Your task to perform on an android device: What's on my calendar today? Image 0: 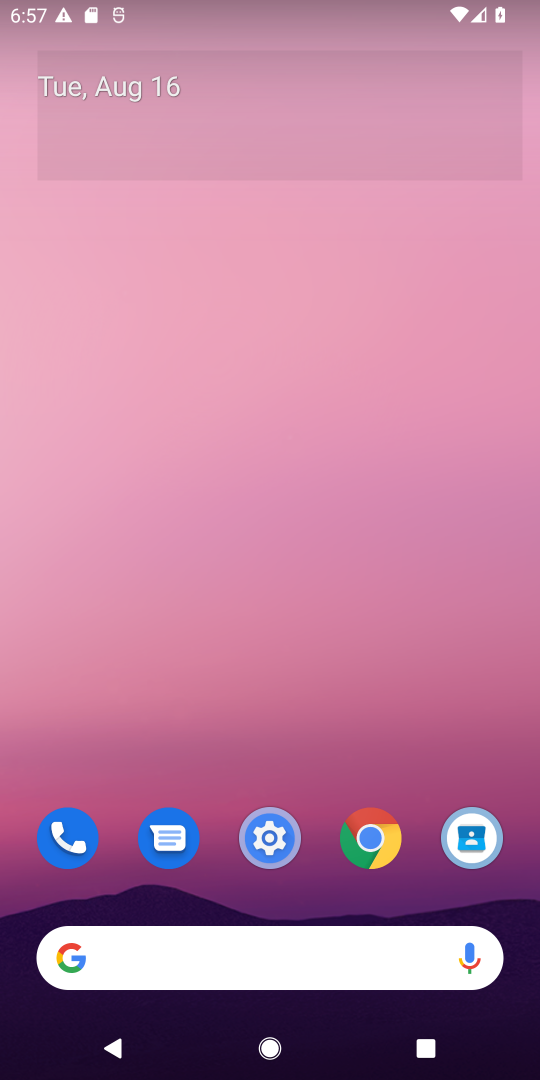
Step 0: drag from (316, 790) to (369, 1)
Your task to perform on an android device: What's on my calendar today? Image 1: 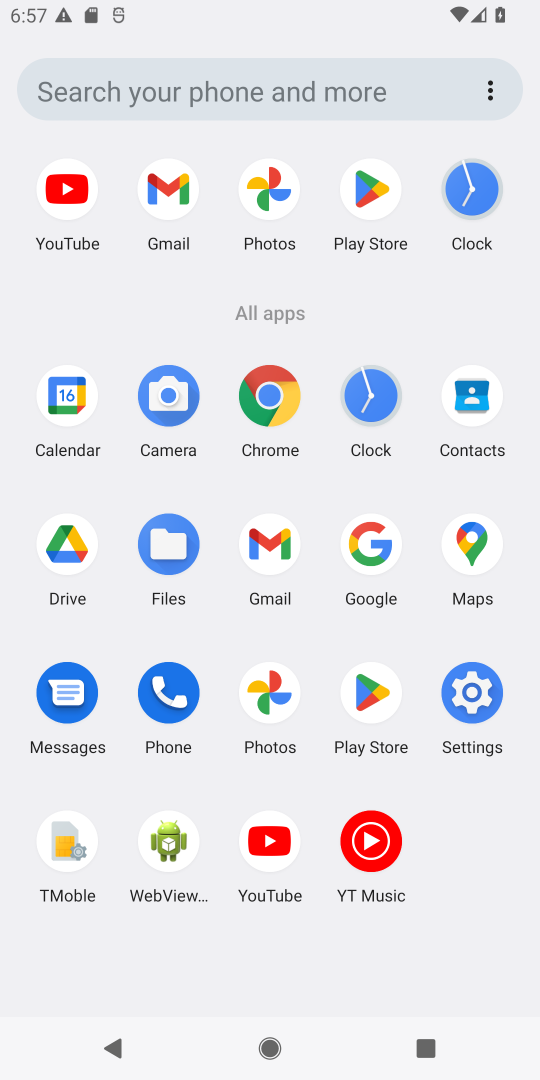
Step 1: click (71, 378)
Your task to perform on an android device: What's on my calendar today? Image 2: 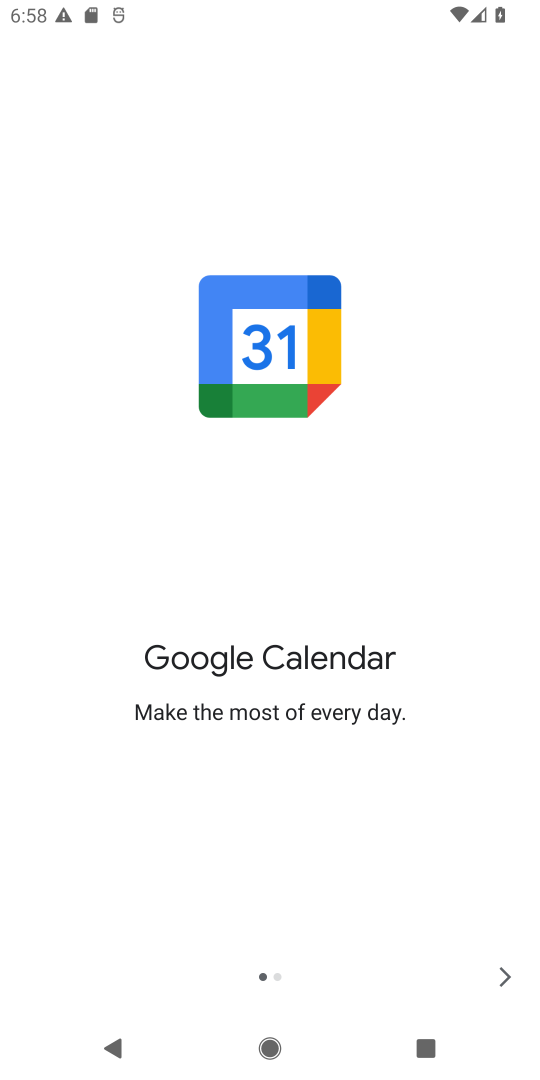
Step 2: click (508, 971)
Your task to perform on an android device: What's on my calendar today? Image 3: 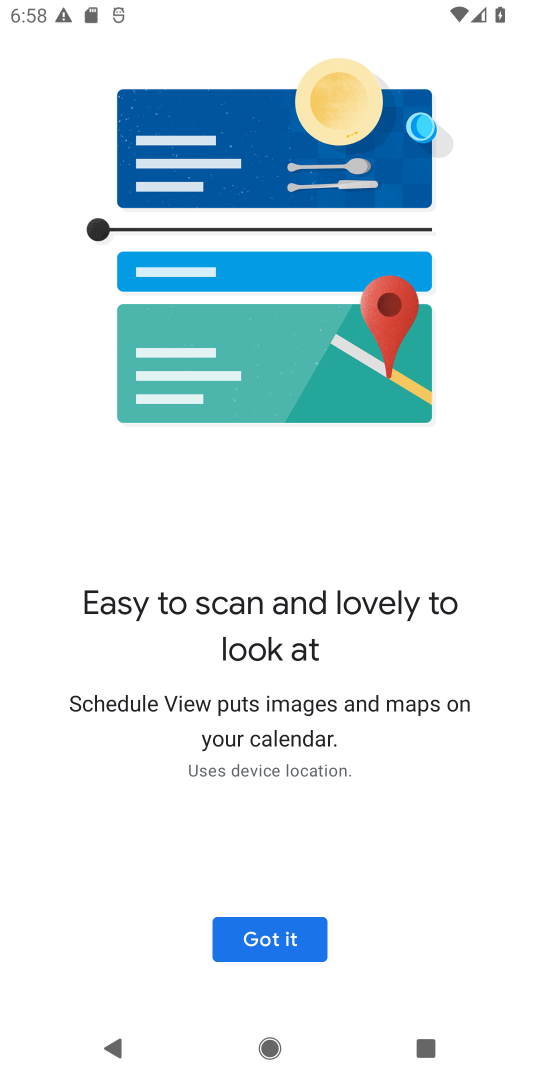
Step 3: click (270, 934)
Your task to perform on an android device: What's on my calendar today? Image 4: 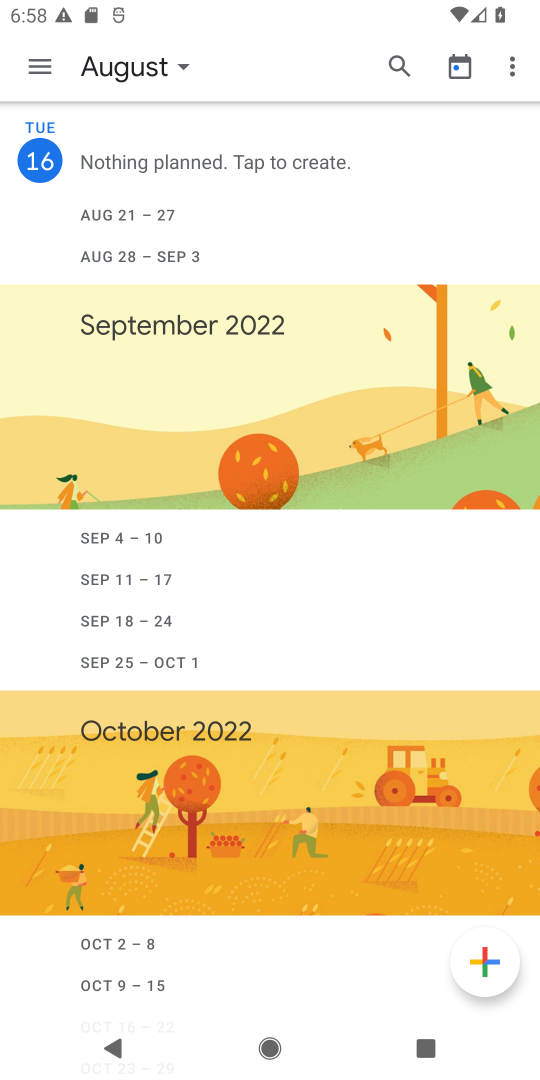
Step 4: click (172, 68)
Your task to perform on an android device: What's on my calendar today? Image 5: 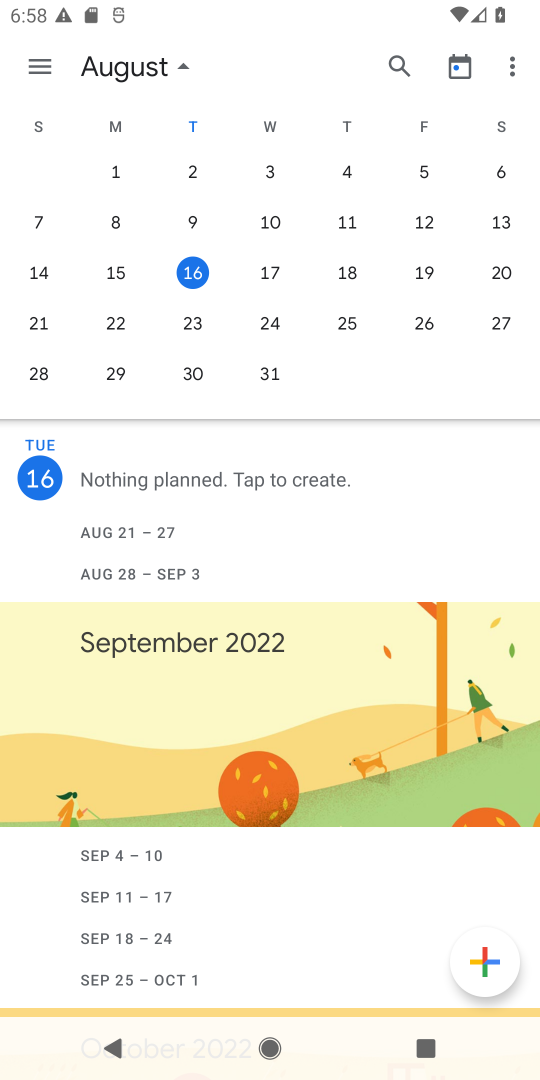
Step 5: click (195, 270)
Your task to perform on an android device: What's on my calendar today? Image 6: 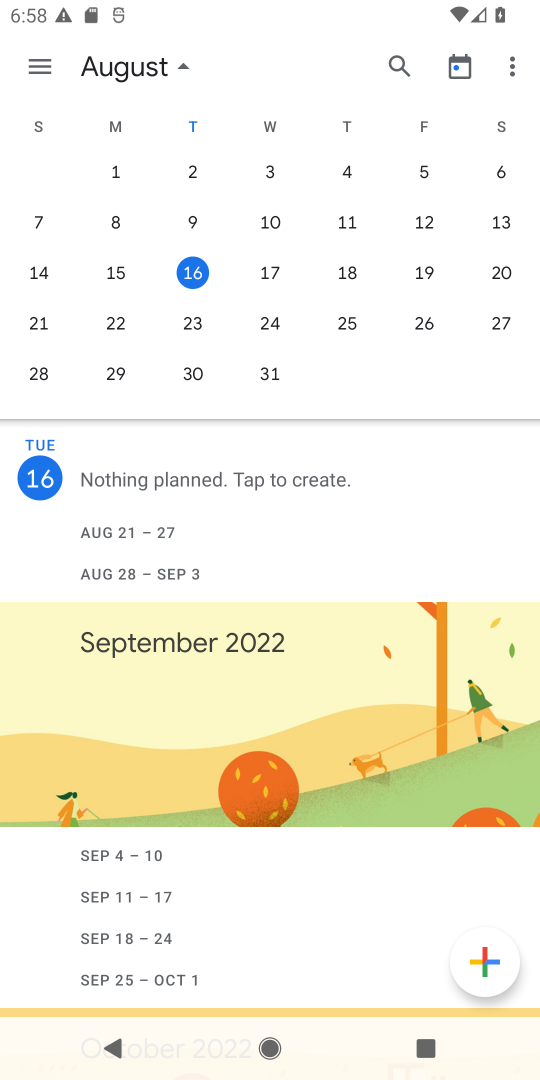
Step 6: click (59, 471)
Your task to perform on an android device: What's on my calendar today? Image 7: 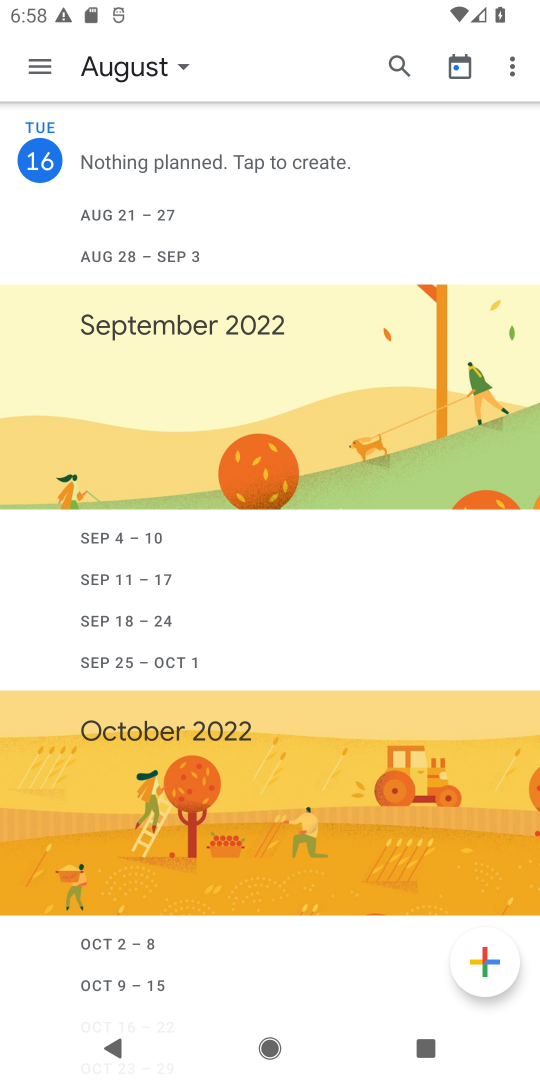
Step 7: click (54, 159)
Your task to perform on an android device: What's on my calendar today? Image 8: 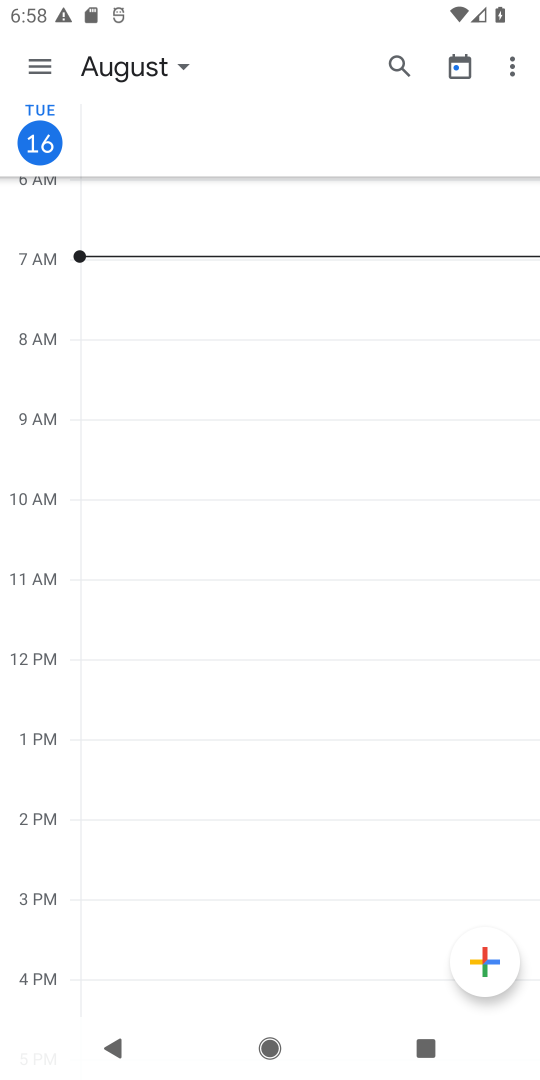
Step 8: task complete